Your task to perform on an android device: uninstall "Etsy: Buy & Sell Unique Items" Image 0: 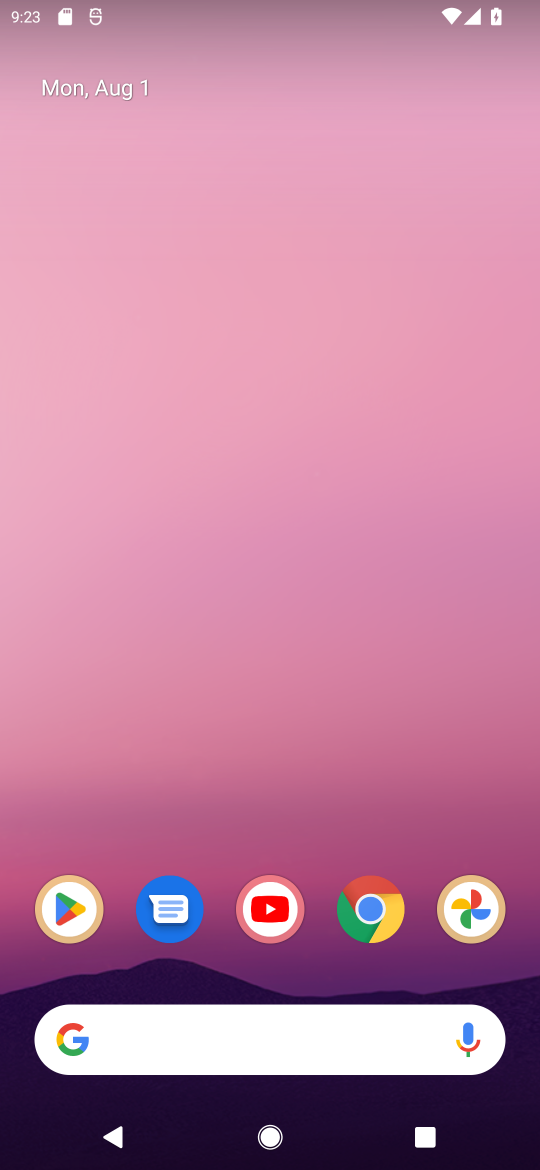
Step 0: click (36, 890)
Your task to perform on an android device: uninstall "Etsy: Buy & Sell Unique Items" Image 1: 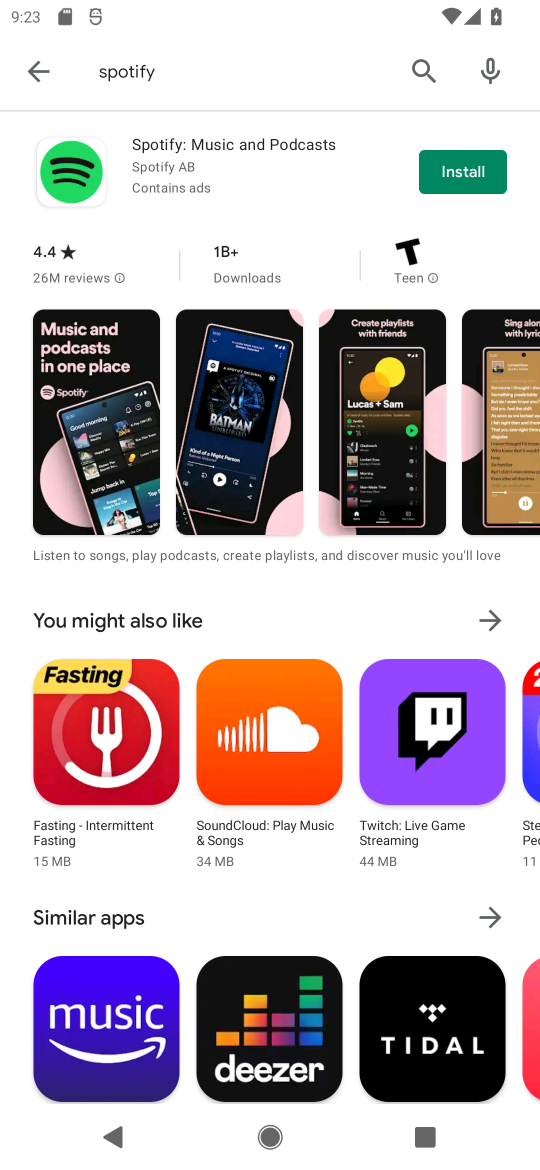
Step 1: click (214, 75)
Your task to perform on an android device: uninstall "Etsy: Buy & Sell Unique Items" Image 2: 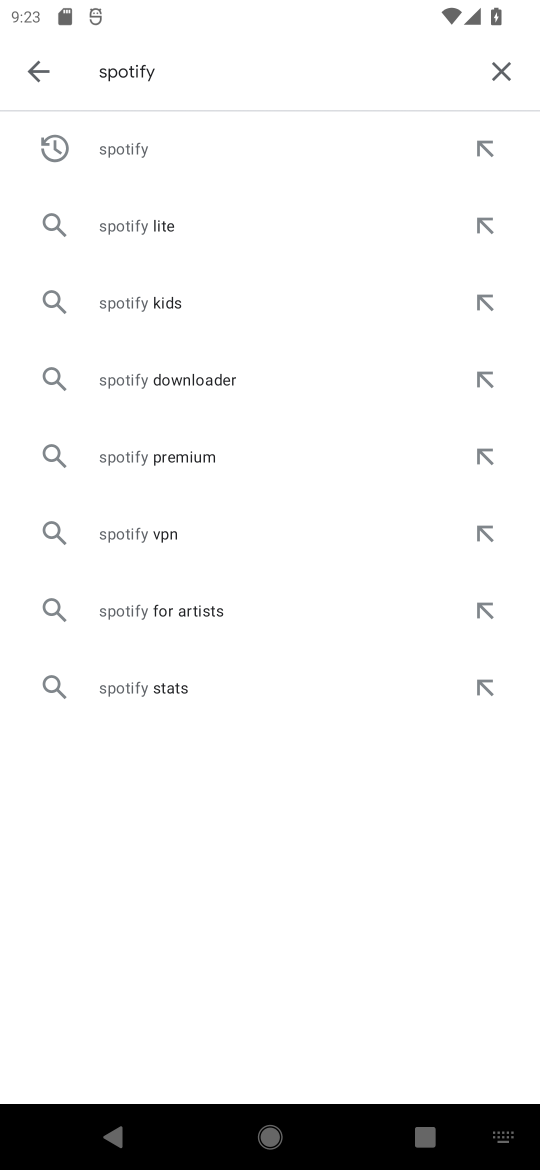
Step 2: click (517, 67)
Your task to perform on an android device: uninstall "Etsy: Buy & Sell Unique Items" Image 3: 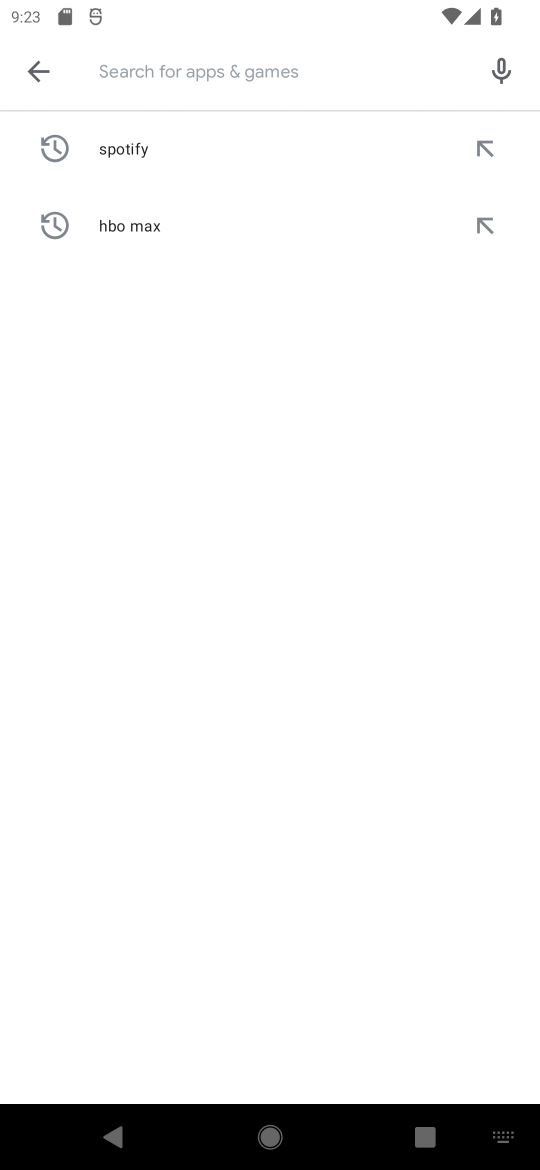
Step 3: type ""
Your task to perform on an android device: uninstall "Etsy: Buy & Sell Unique Items" Image 4: 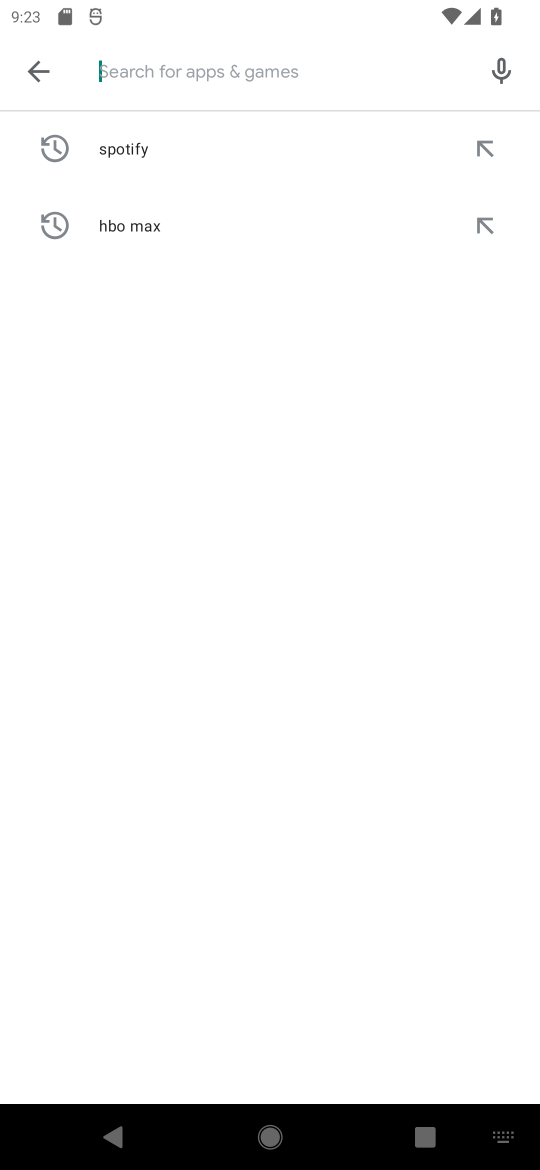
Step 4: type "Etsy"
Your task to perform on an android device: uninstall "Etsy: Buy & Sell Unique Items" Image 5: 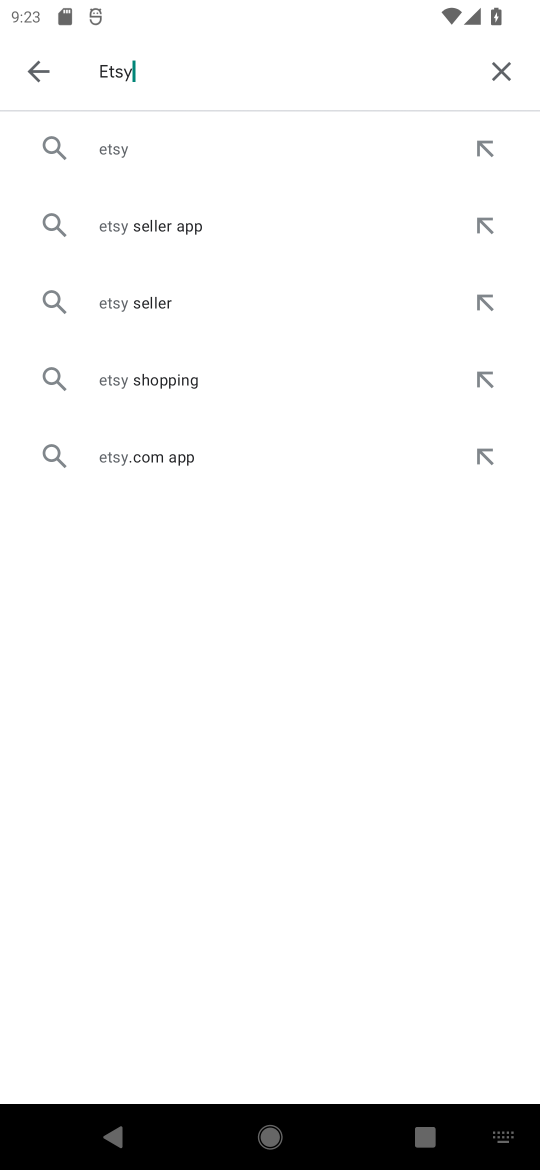
Step 5: click (159, 143)
Your task to perform on an android device: uninstall "Etsy: Buy & Sell Unique Items" Image 6: 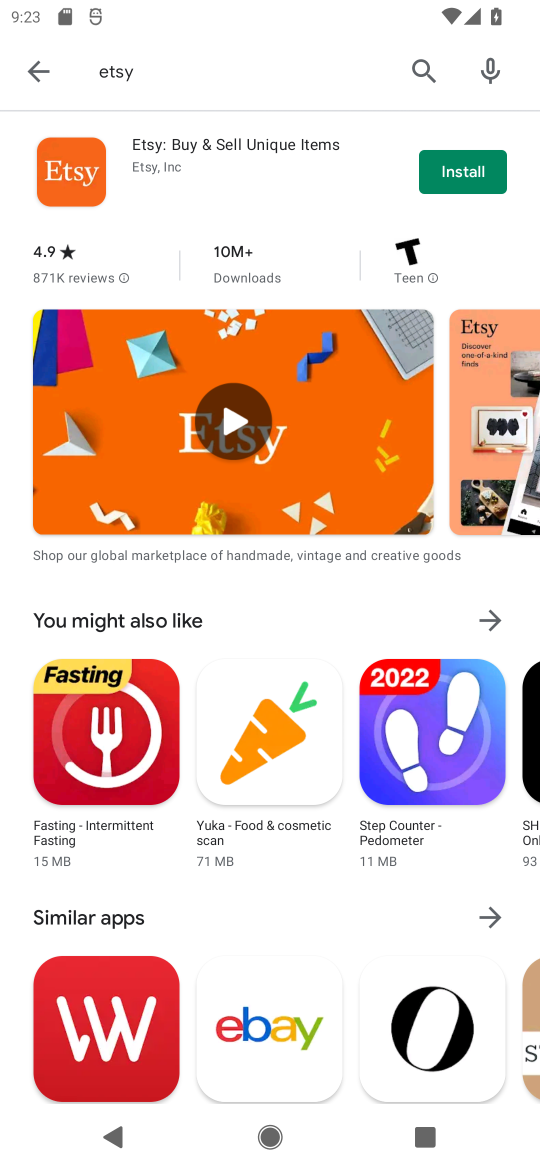
Step 6: task complete